Your task to perform on an android device: Search for "jbl charge 4" on bestbuy, select the first entry, add it to the cart, then select checkout. Image 0: 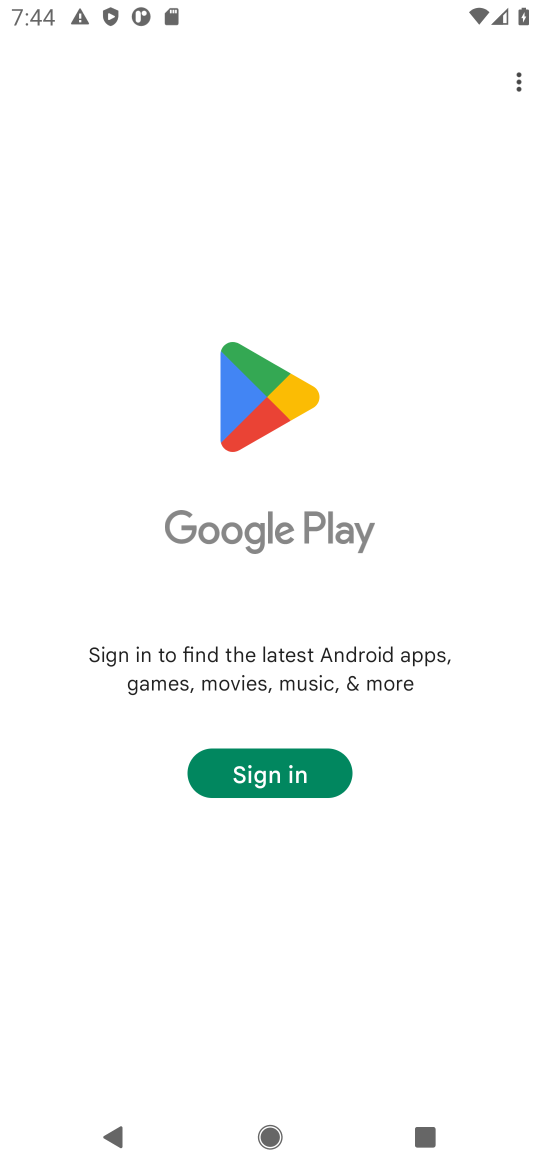
Step 0: press home button
Your task to perform on an android device: Search for "jbl charge 4" on bestbuy, select the first entry, add it to the cart, then select checkout. Image 1: 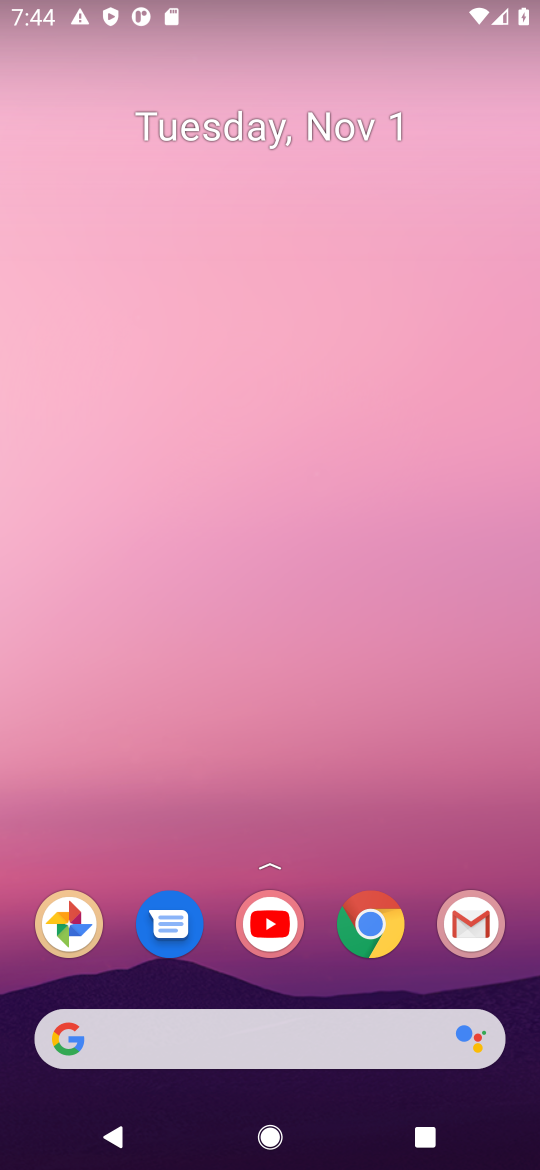
Step 1: click (116, 1035)
Your task to perform on an android device: Search for "jbl charge 4" on bestbuy, select the first entry, add it to the cart, then select checkout. Image 2: 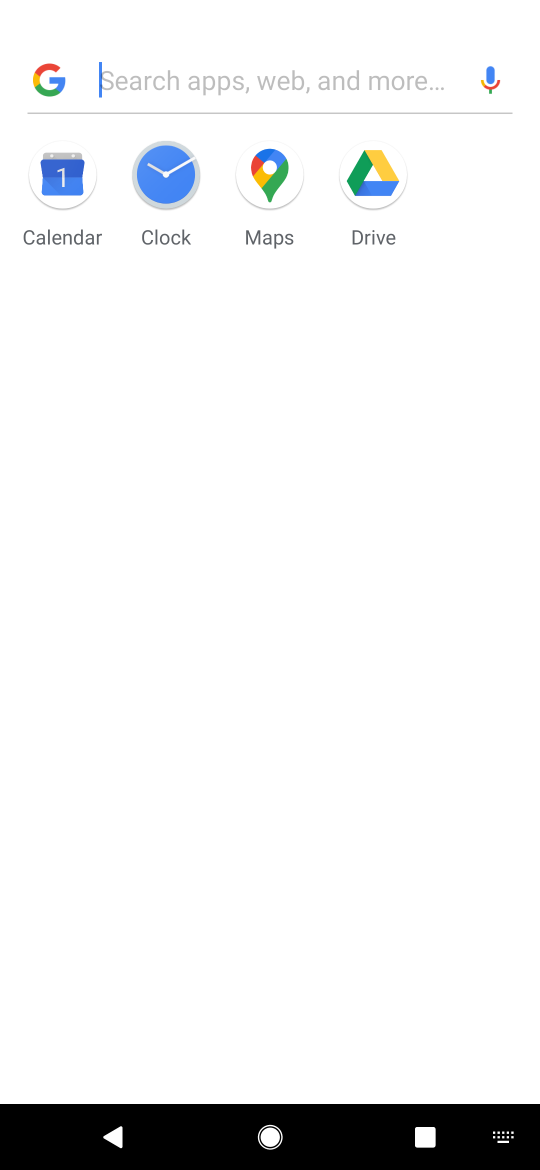
Step 2: type "bestbuy"
Your task to perform on an android device: Search for "jbl charge 4" on bestbuy, select the first entry, add it to the cart, then select checkout. Image 3: 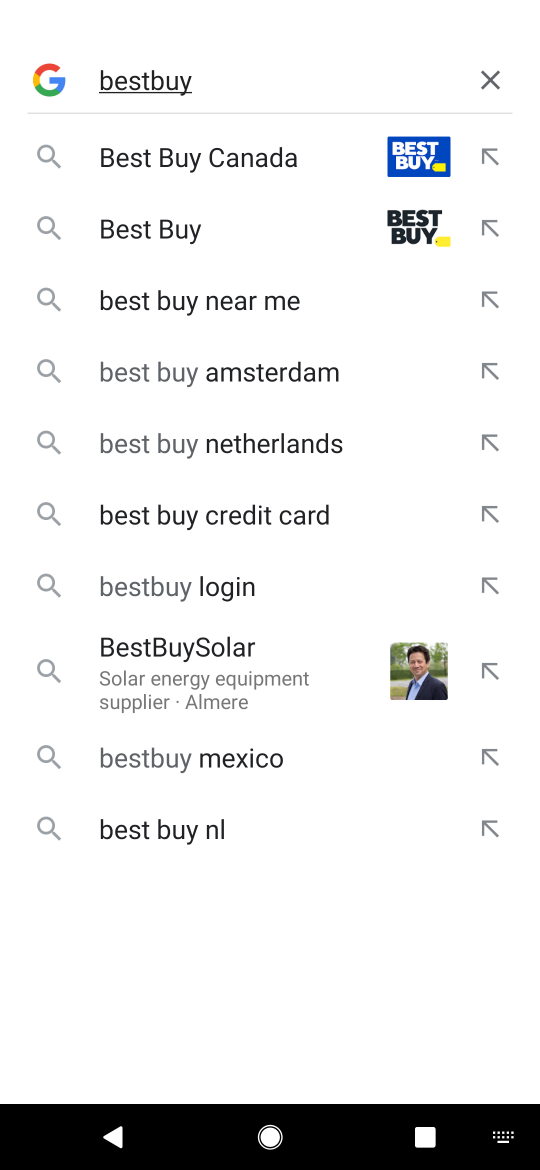
Step 3: press enter
Your task to perform on an android device: Search for "jbl charge 4" on bestbuy, select the first entry, add it to the cart, then select checkout. Image 4: 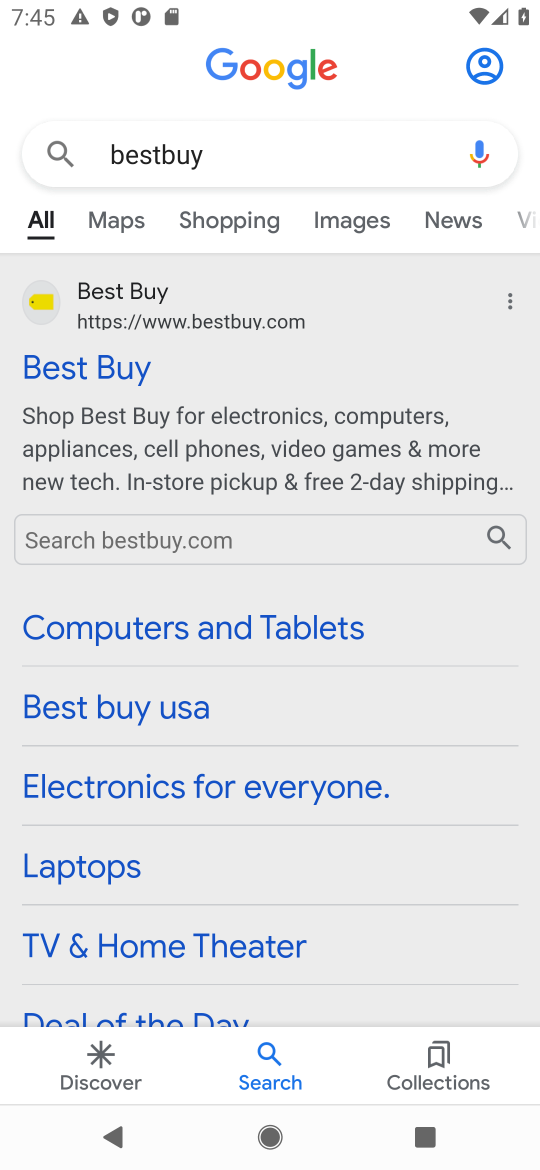
Step 4: click (114, 365)
Your task to perform on an android device: Search for "jbl charge 4" on bestbuy, select the first entry, add it to the cart, then select checkout. Image 5: 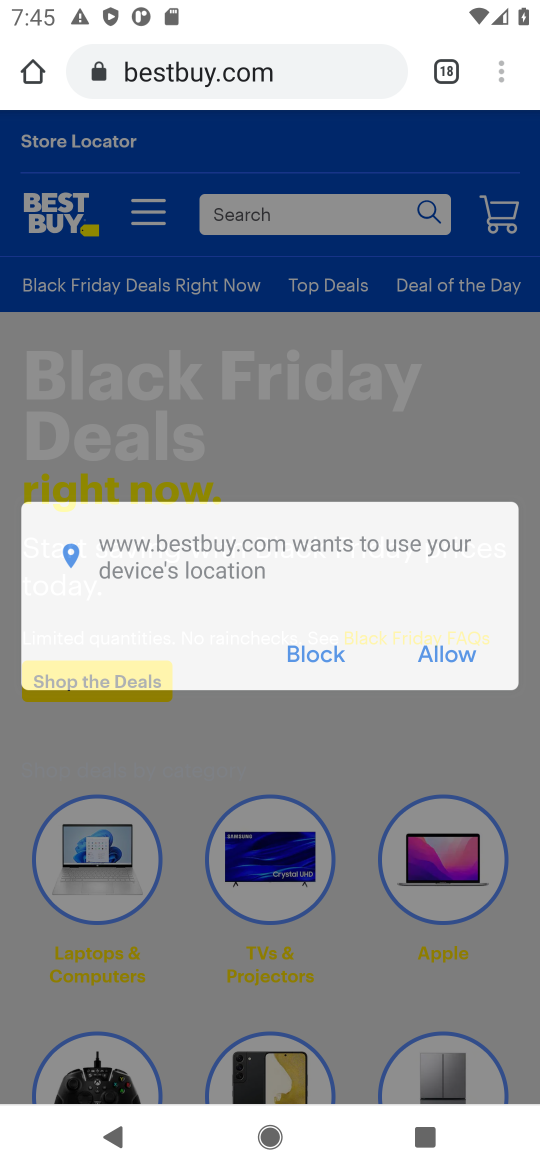
Step 5: click (232, 210)
Your task to perform on an android device: Search for "jbl charge 4" on bestbuy, select the first entry, add it to the cart, then select checkout. Image 6: 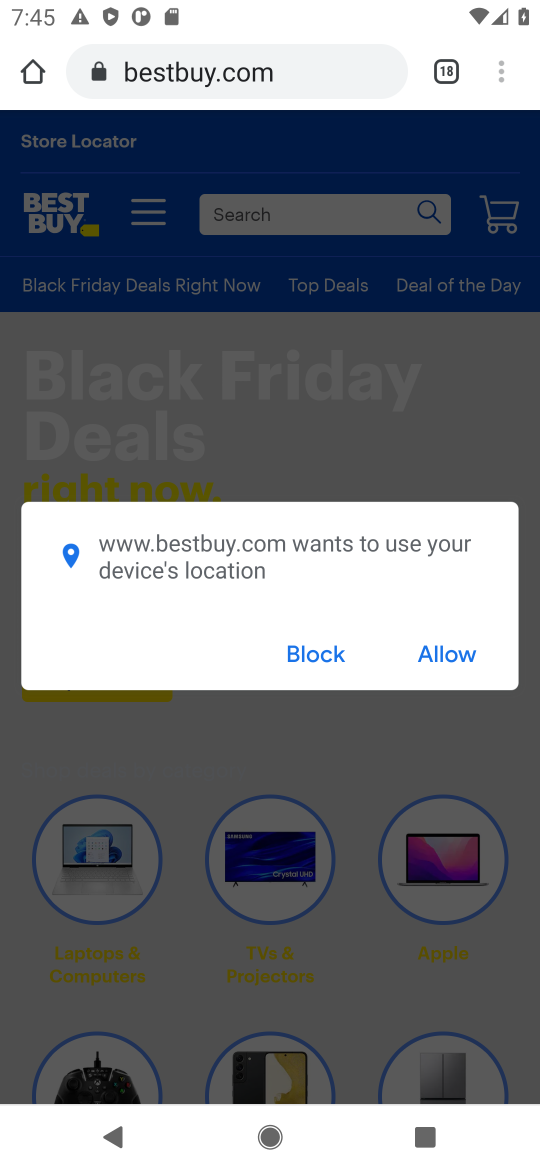
Step 6: click (329, 651)
Your task to perform on an android device: Search for "jbl charge 4" on bestbuy, select the first entry, add it to the cart, then select checkout. Image 7: 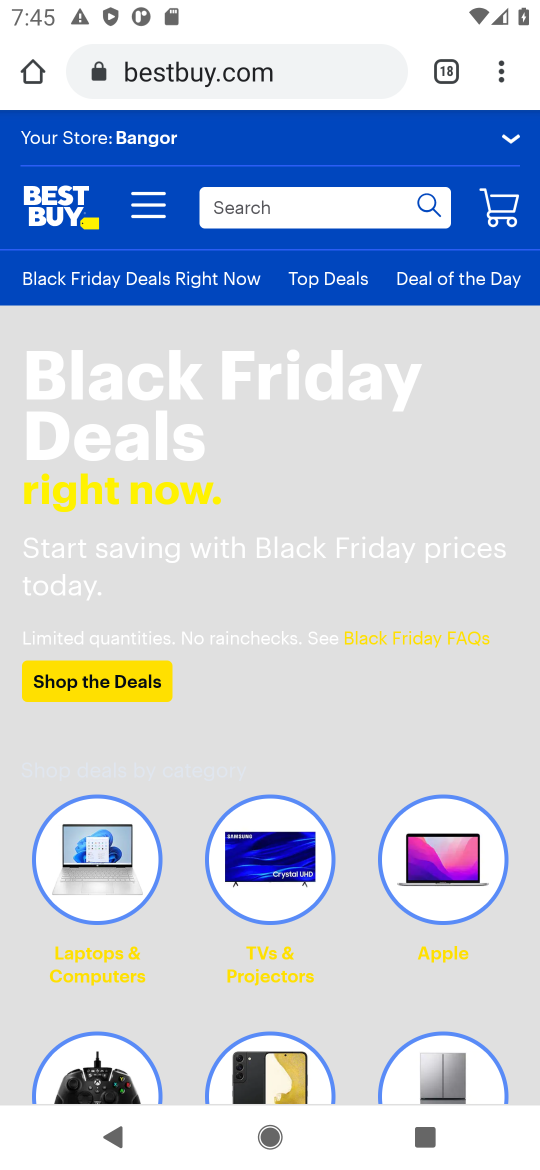
Step 7: click (228, 205)
Your task to perform on an android device: Search for "jbl charge 4" on bestbuy, select the first entry, add it to the cart, then select checkout. Image 8: 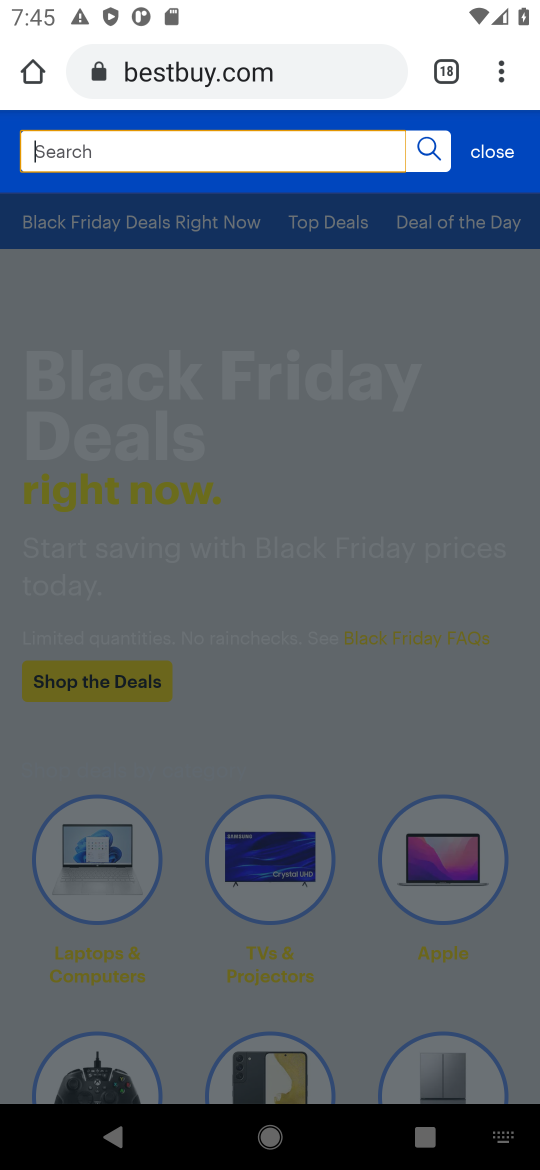
Step 8: type "jbl charge 4"
Your task to perform on an android device: Search for "jbl charge 4" on bestbuy, select the first entry, add it to the cart, then select checkout. Image 9: 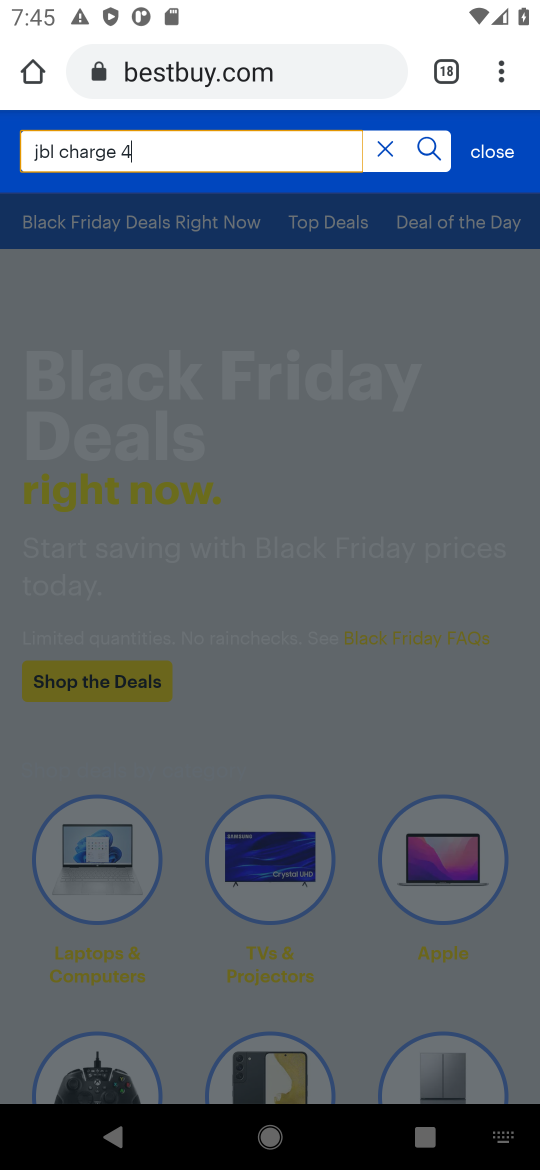
Step 9: press enter
Your task to perform on an android device: Search for "jbl charge 4" on bestbuy, select the first entry, add it to the cart, then select checkout. Image 10: 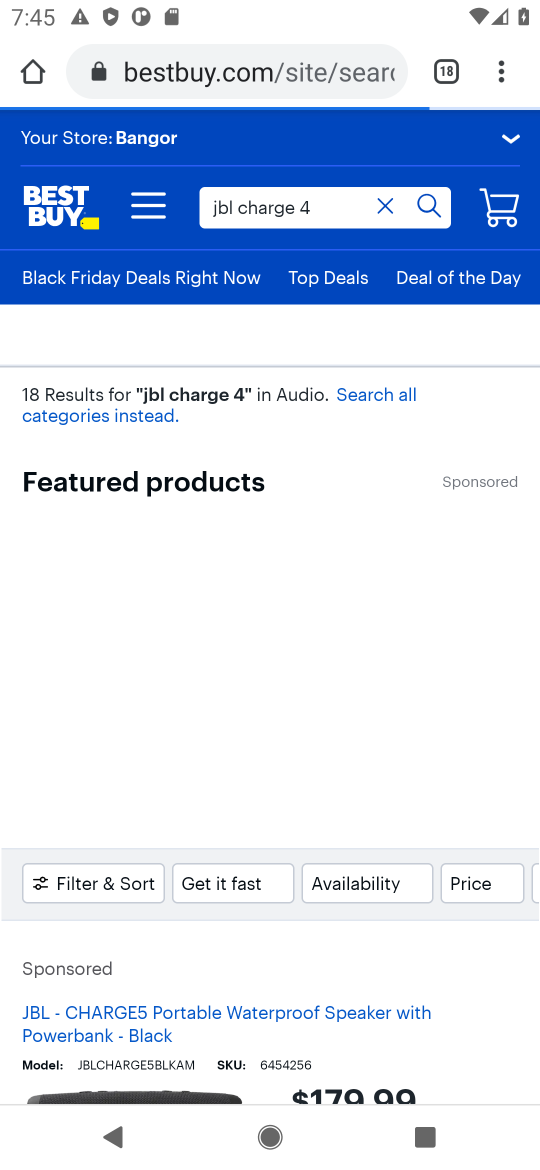
Step 10: task complete